Your task to perform on an android device: Show me popular games on the Play Store Image 0: 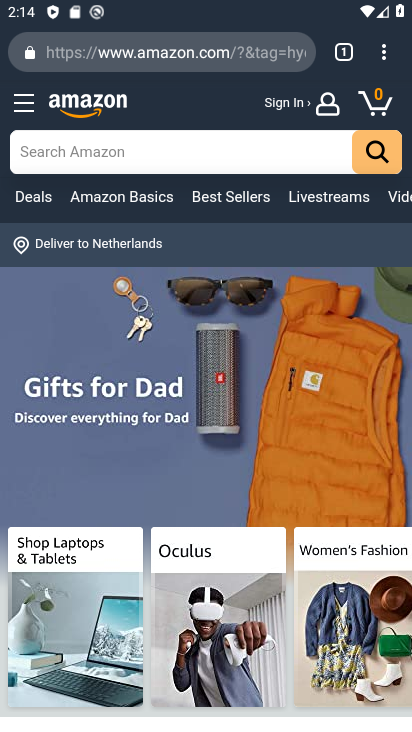
Step 0: press home button
Your task to perform on an android device: Show me popular games on the Play Store Image 1: 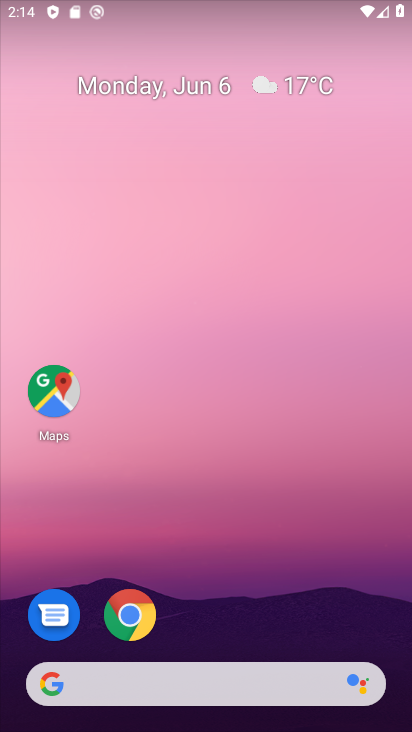
Step 1: drag from (198, 627) to (217, 152)
Your task to perform on an android device: Show me popular games on the Play Store Image 2: 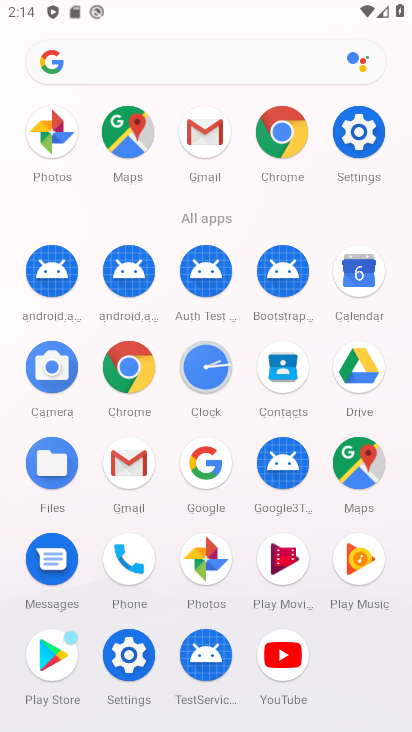
Step 2: click (55, 649)
Your task to perform on an android device: Show me popular games on the Play Store Image 3: 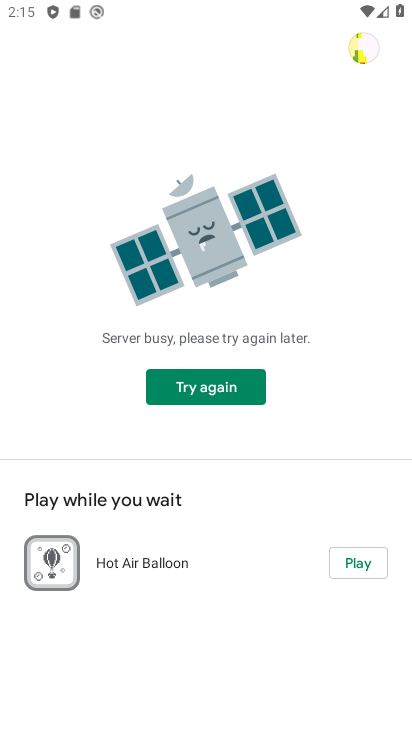
Step 3: click (230, 378)
Your task to perform on an android device: Show me popular games on the Play Store Image 4: 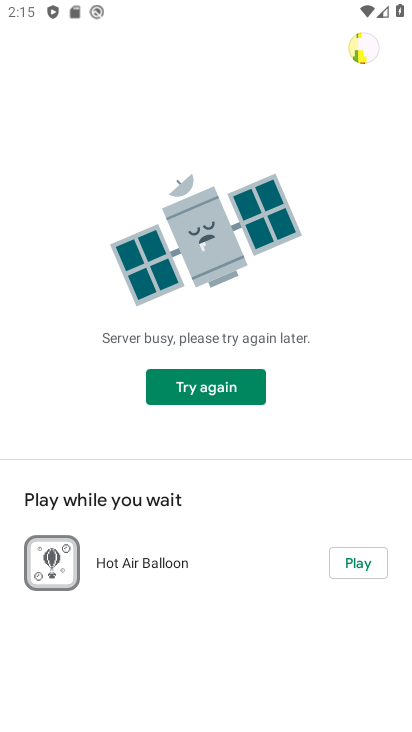
Step 4: click (208, 393)
Your task to perform on an android device: Show me popular games on the Play Store Image 5: 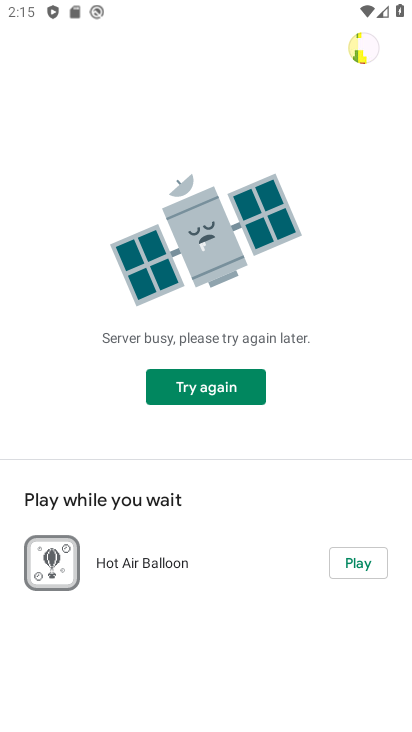
Step 5: task complete